Your task to perform on an android device: Search for Mexican restaurants on Maps Image 0: 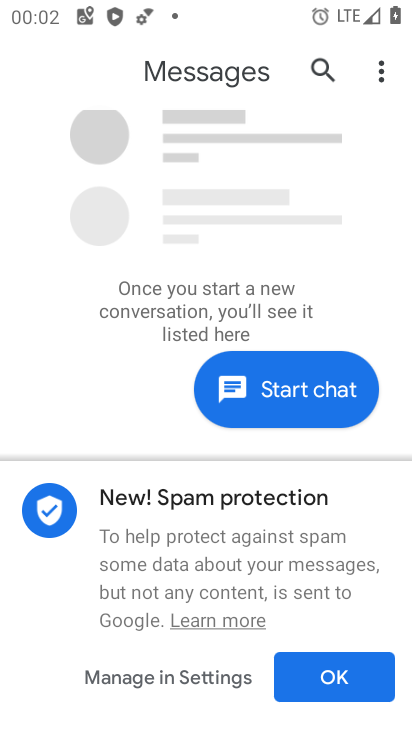
Step 0: press home button
Your task to perform on an android device: Search for Mexican restaurants on Maps Image 1: 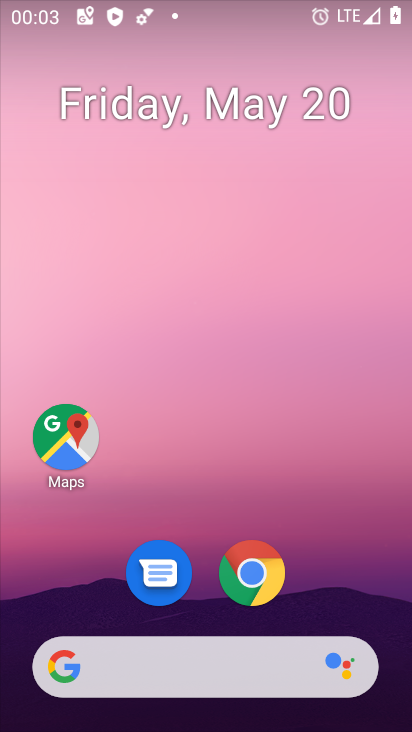
Step 1: click (50, 429)
Your task to perform on an android device: Search for Mexican restaurants on Maps Image 2: 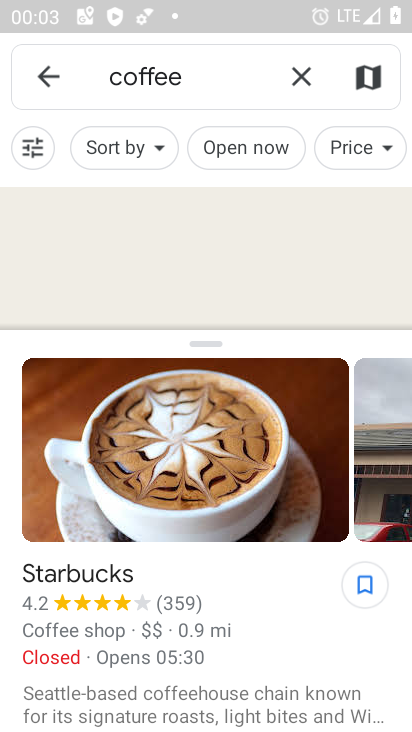
Step 2: click (300, 86)
Your task to perform on an android device: Search for Mexican restaurants on Maps Image 3: 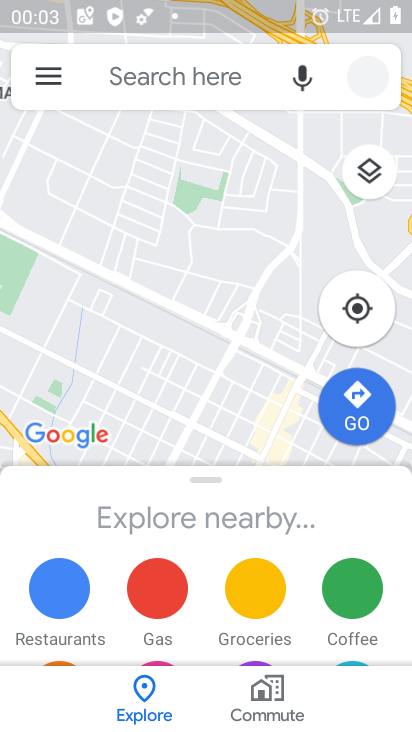
Step 3: click (198, 69)
Your task to perform on an android device: Search for Mexican restaurants on Maps Image 4: 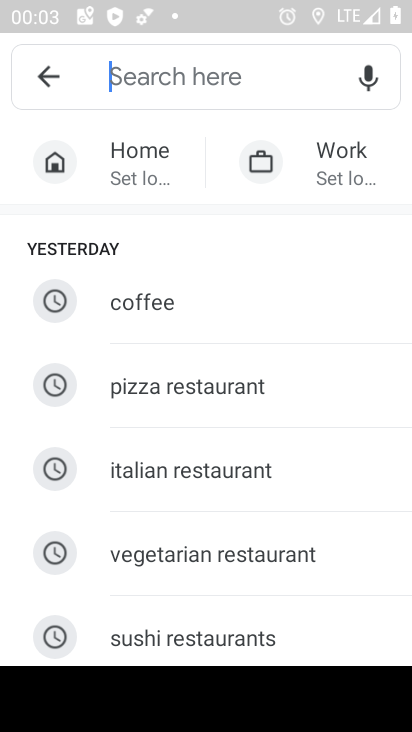
Step 4: type "Mexican restaurants"
Your task to perform on an android device: Search for Mexican restaurants on Maps Image 5: 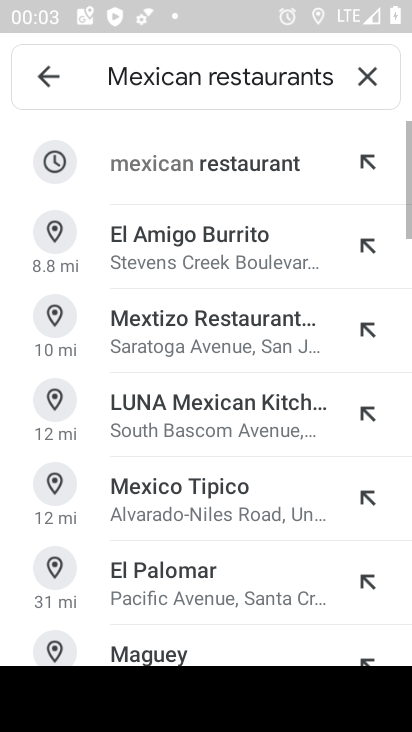
Step 5: click (200, 173)
Your task to perform on an android device: Search for Mexican restaurants on Maps Image 6: 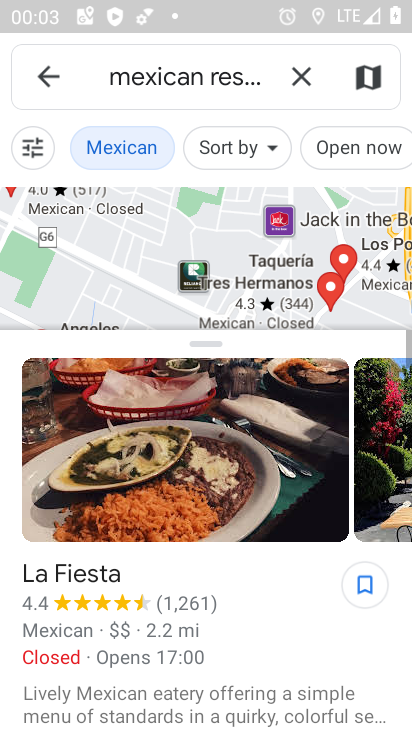
Step 6: task complete